Your task to perform on an android device: Open display settings Image 0: 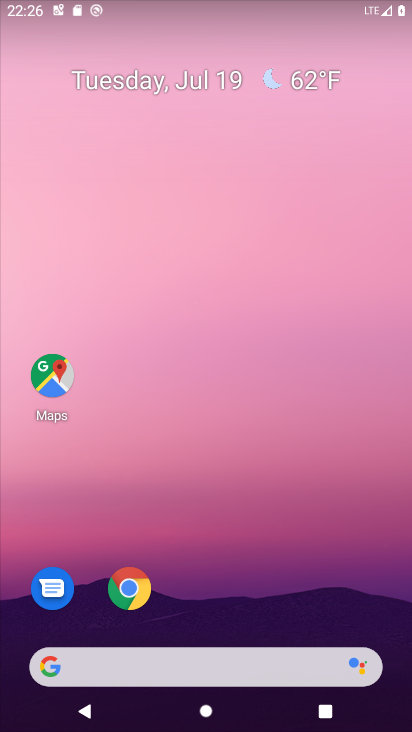
Step 0: drag from (206, 318) to (225, 110)
Your task to perform on an android device: Open display settings Image 1: 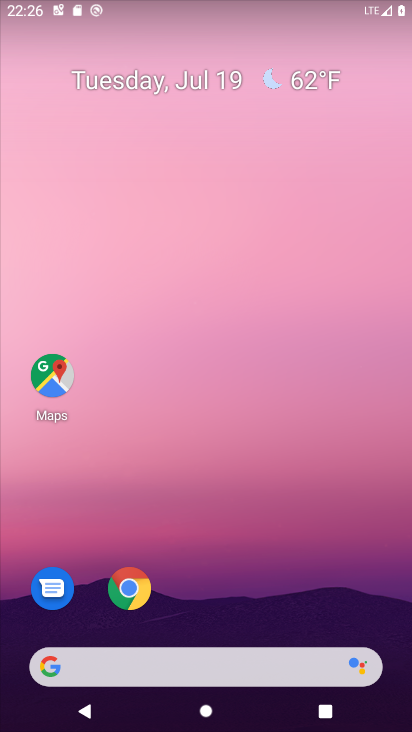
Step 1: drag from (177, 629) to (216, 122)
Your task to perform on an android device: Open display settings Image 2: 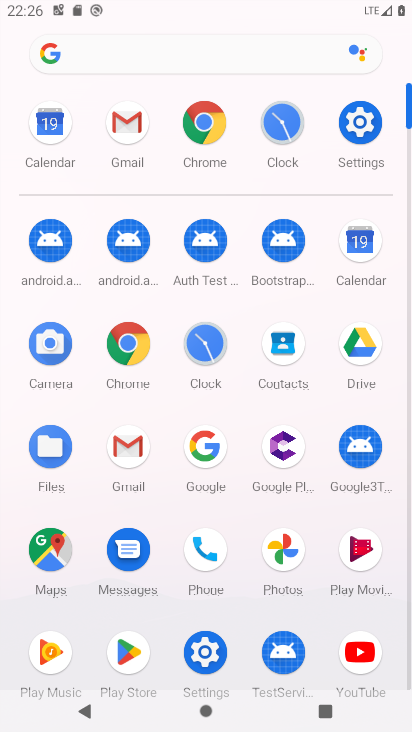
Step 2: click (354, 132)
Your task to perform on an android device: Open display settings Image 3: 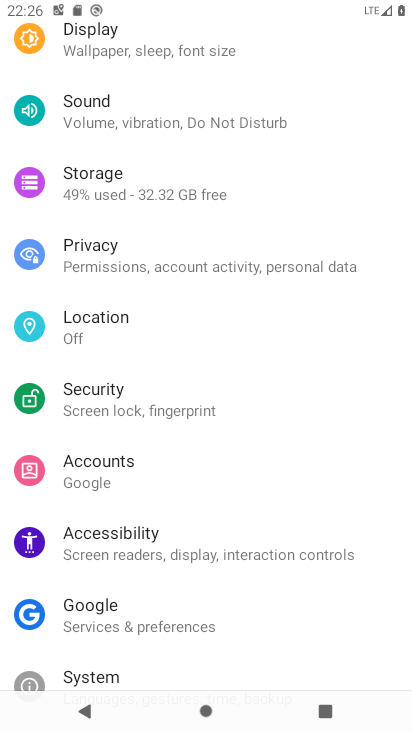
Step 3: click (122, 49)
Your task to perform on an android device: Open display settings Image 4: 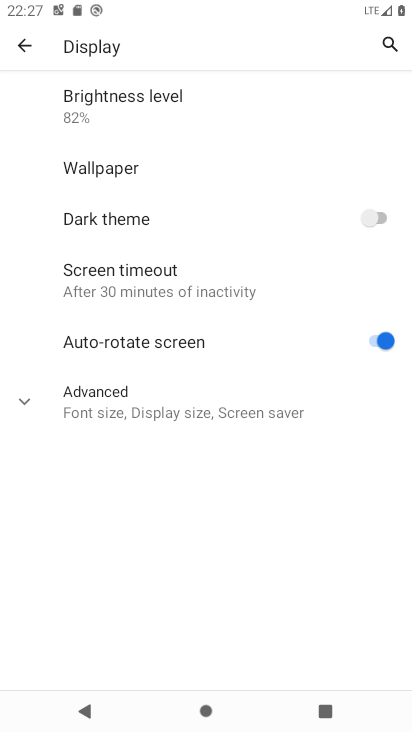
Step 4: task complete